Your task to perform on an android device: delete a single message in the gmail app Image 0: 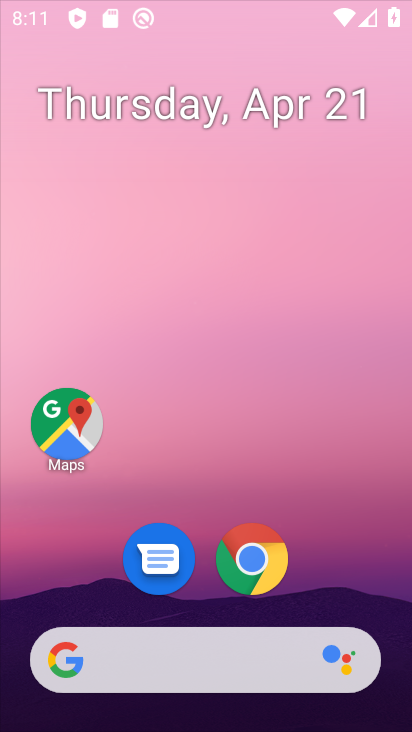
Step 0: click (298, 137)
Your task to perform on an android device: delete a single message in the gmail app Image 1: 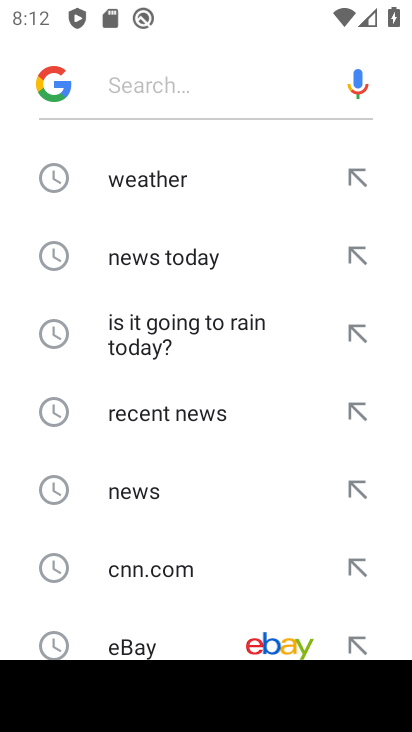
Step 1: press back button
Your task to perform on an android device: delete a single message in the gmail app Image 2: 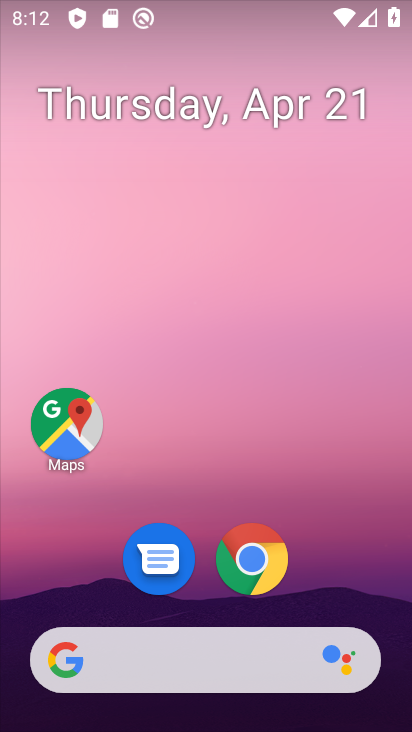
Step 2: drag from (230, 500) to (328, 36)
Your task to perform on an android device: delete a single message in the gmail app Image 3: 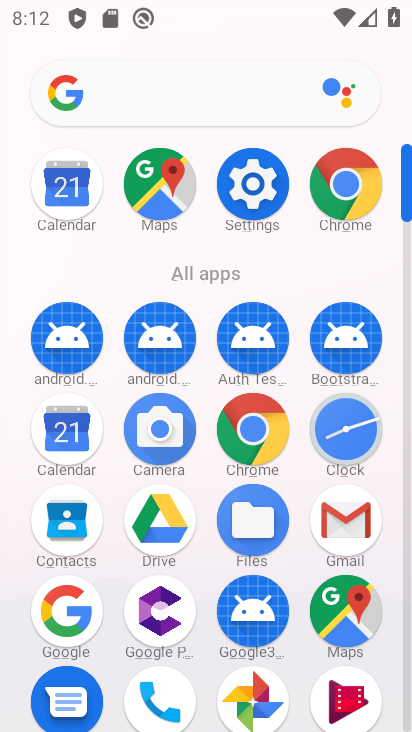
Step 3: click (364, 527)
Your task to perform on an android device: delete a single message in the gmail app Image 4: 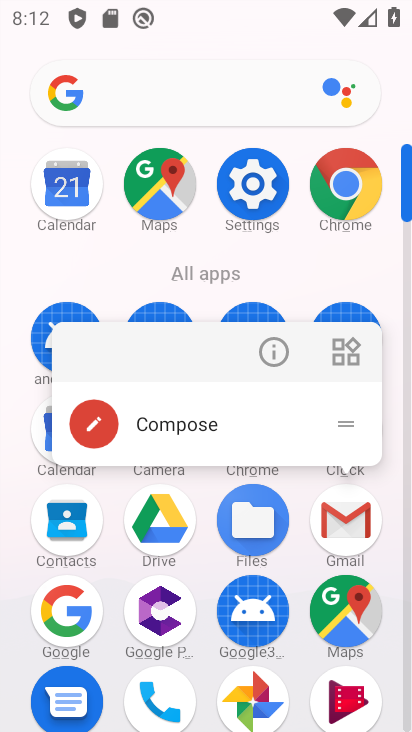
Step 4: click (348, 525)
Your task to perform on an android device: delete a single message in the gmail app Image 5: 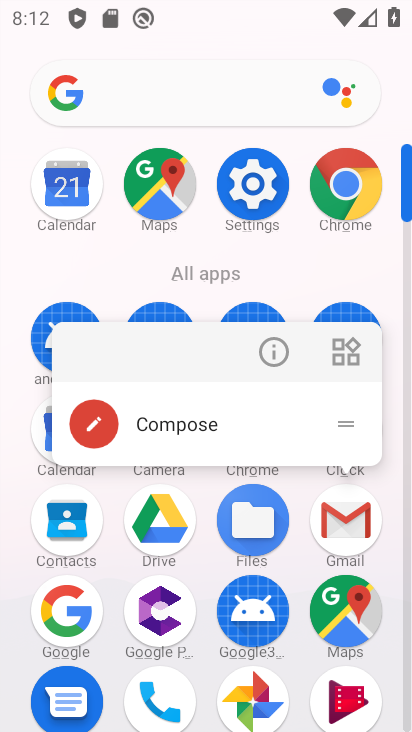
Step 5: click (354, 535)
Your task to perform on an android device: delete a single message in the gmail app Image 6: 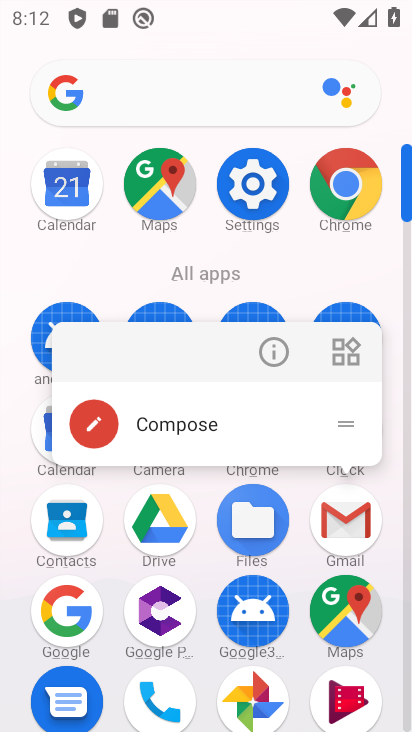
Step 6: click (354, 512)
Your task to perform on an android device: delete a single message in the gmail app Image 7: 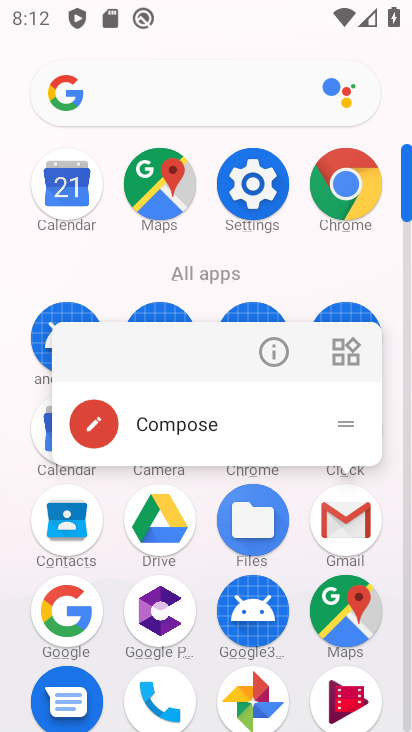
Step 7: click (331, 536)
Your task to perform on an android device: delete a single message in the gmail app Image 8: 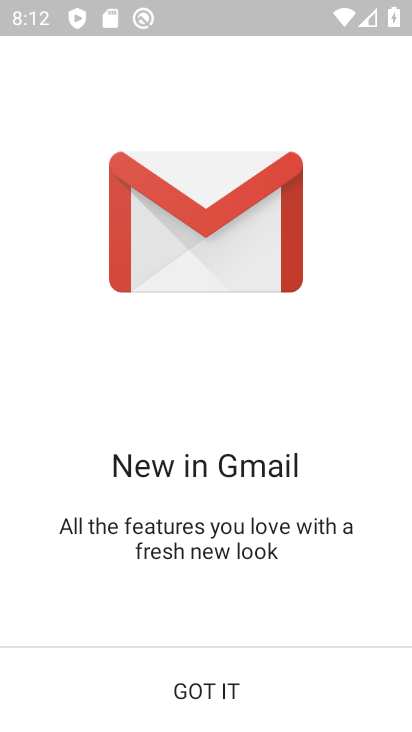
Step 8: click (275, 720)
Your task to perform on an android device: delete a single message in the gmail app Image 9: 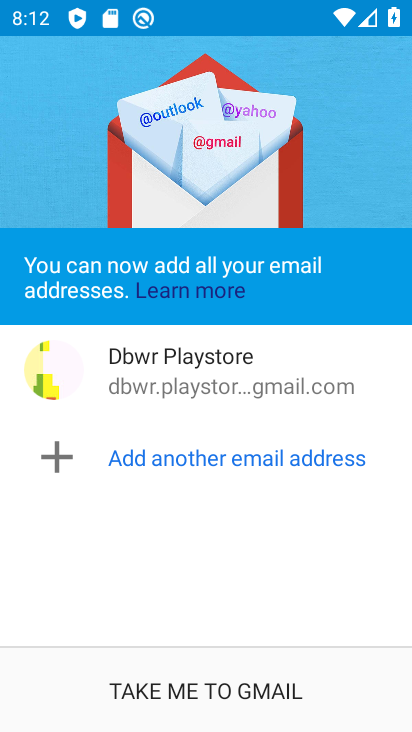
Step 9: click (270, 707)
Your task to perform on an android device: delete a single message in the gmail app Image 10: 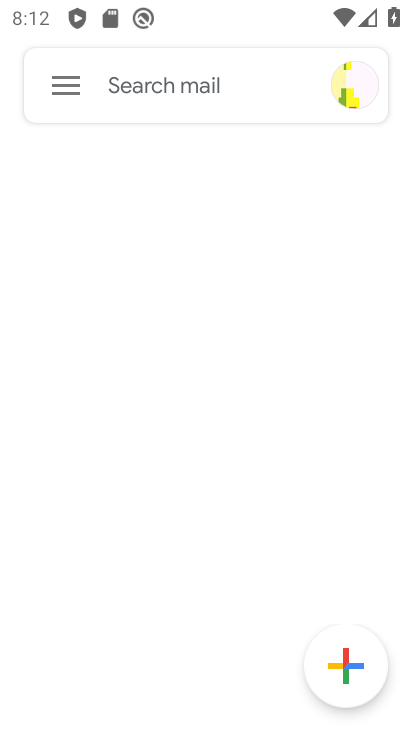
Step 10: click (55, 88)
Your task to perform on an android device: delete a single message in the gmail app Image 11: 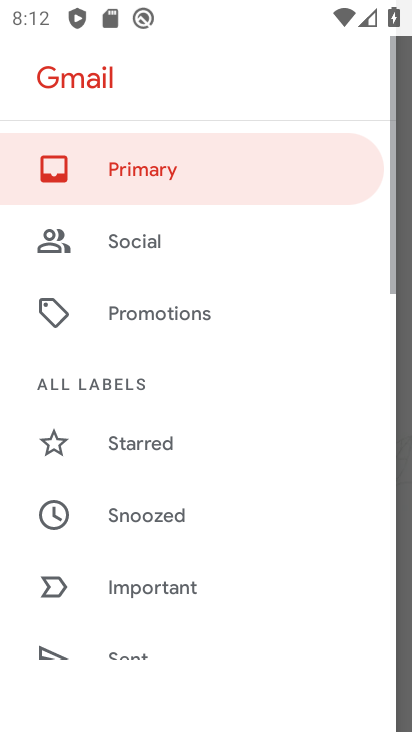
Step 11: drag from (191, 640) to (308, 215)
Your task to perform on an android device: delete a single message in the gmail app Image 12: 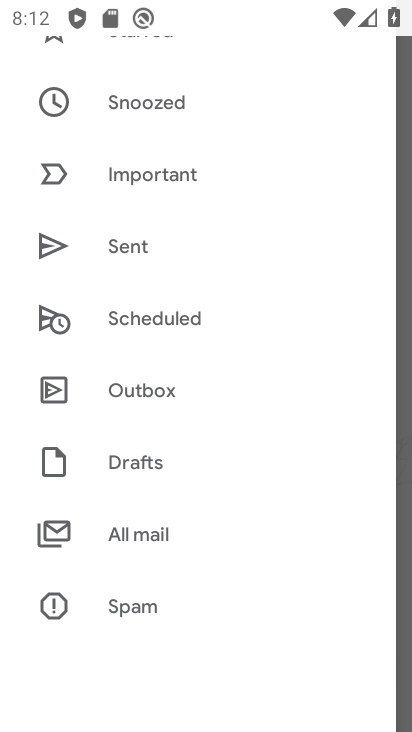
Step 12: click (237, 539)
Your task to perform on an android device: delete a single message in the gmail app Image 13: 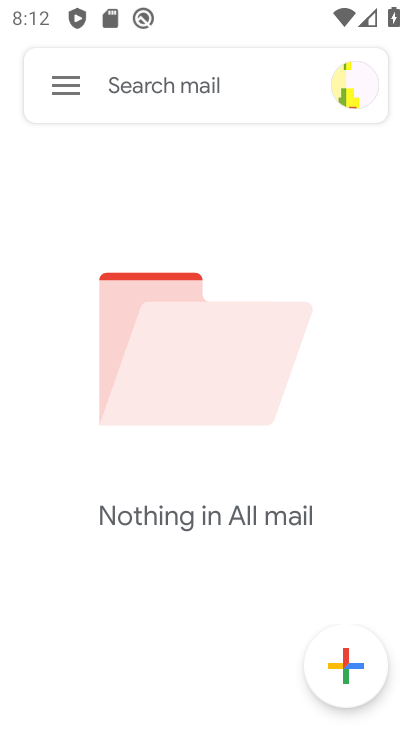
Step 13: task complete